Your task to perform on an android device: Search for Mexican restaurants on Maps Image 0: 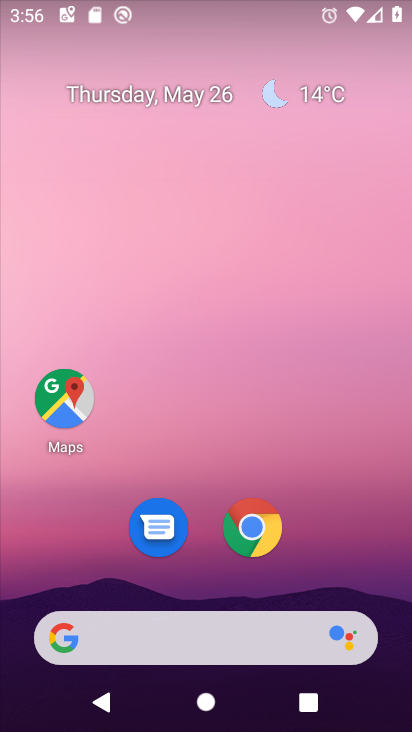
Step 0: drag from (405, 601) to (329, 194)
Your task to perform on an android device: Search for Mexican restaurants on Maps Image 1: 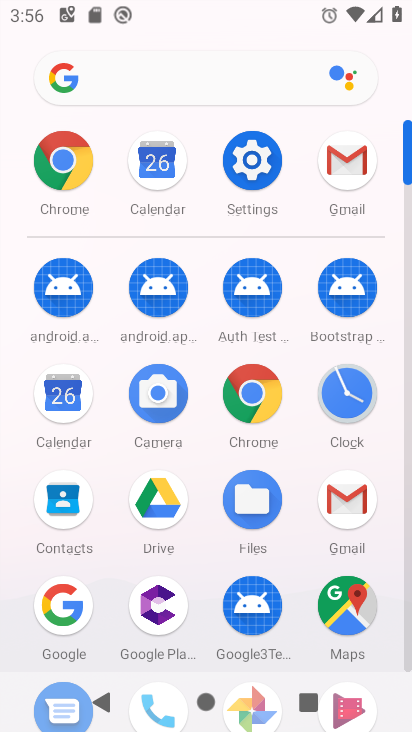
Step 1: click (345, 604)
Your task to perform on an android device: Search for Mexican restaurants on Maps Image 2: 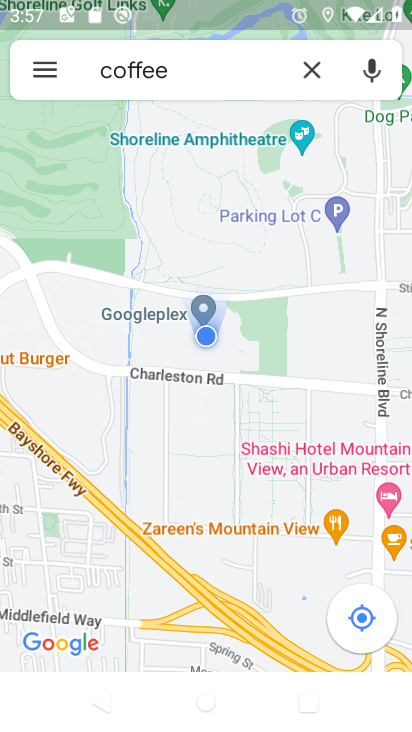
Step 2: click (312, 61)
Your task to perform on an android device: Search for Mexican restaurants on Maps Image 3: 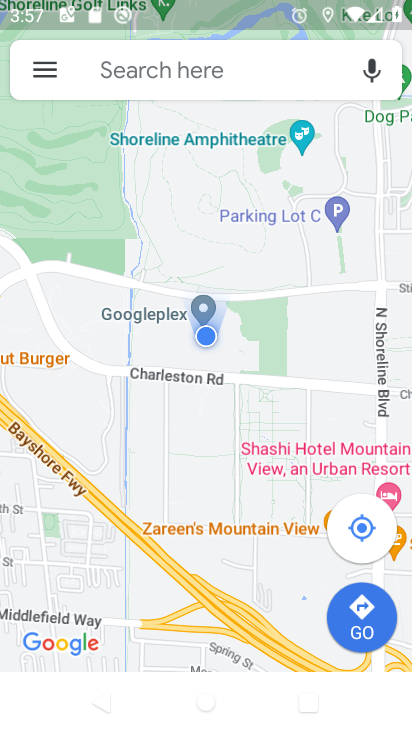
Step 3: click (213, 81)
Your task to perform on an android device: Search for Mexican restaurants on Maps Image 4: 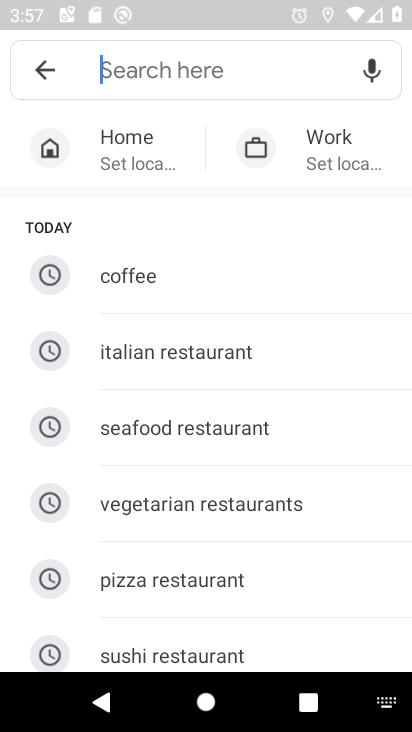
Step 4: type "Mexican restaurants"
Your task to perform on an android device: Search for Mexican restaurants on Maps Image 5: 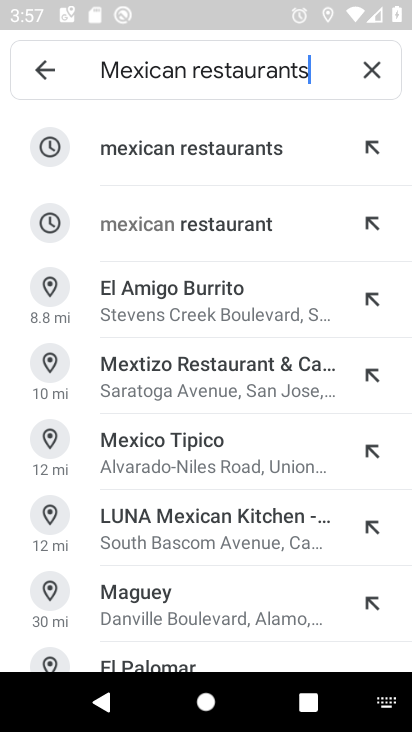
Step 5: click (204, 148)
Your task to perform on an android device: Search for Mexican restaurants on Maps Image 6: 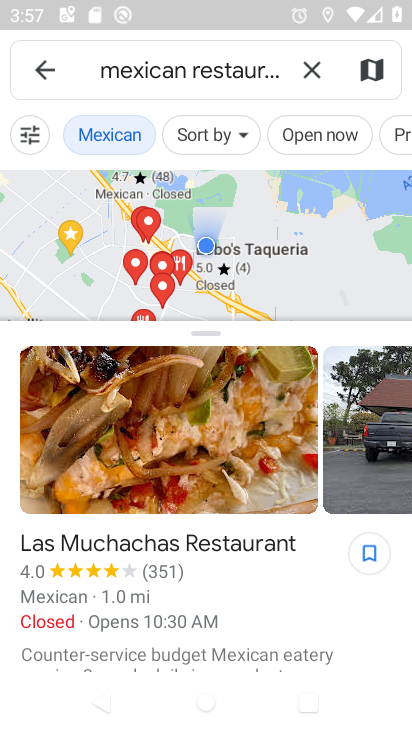
Step 6: task complete